Your task to perform on an android device: See recent photos Image 0: 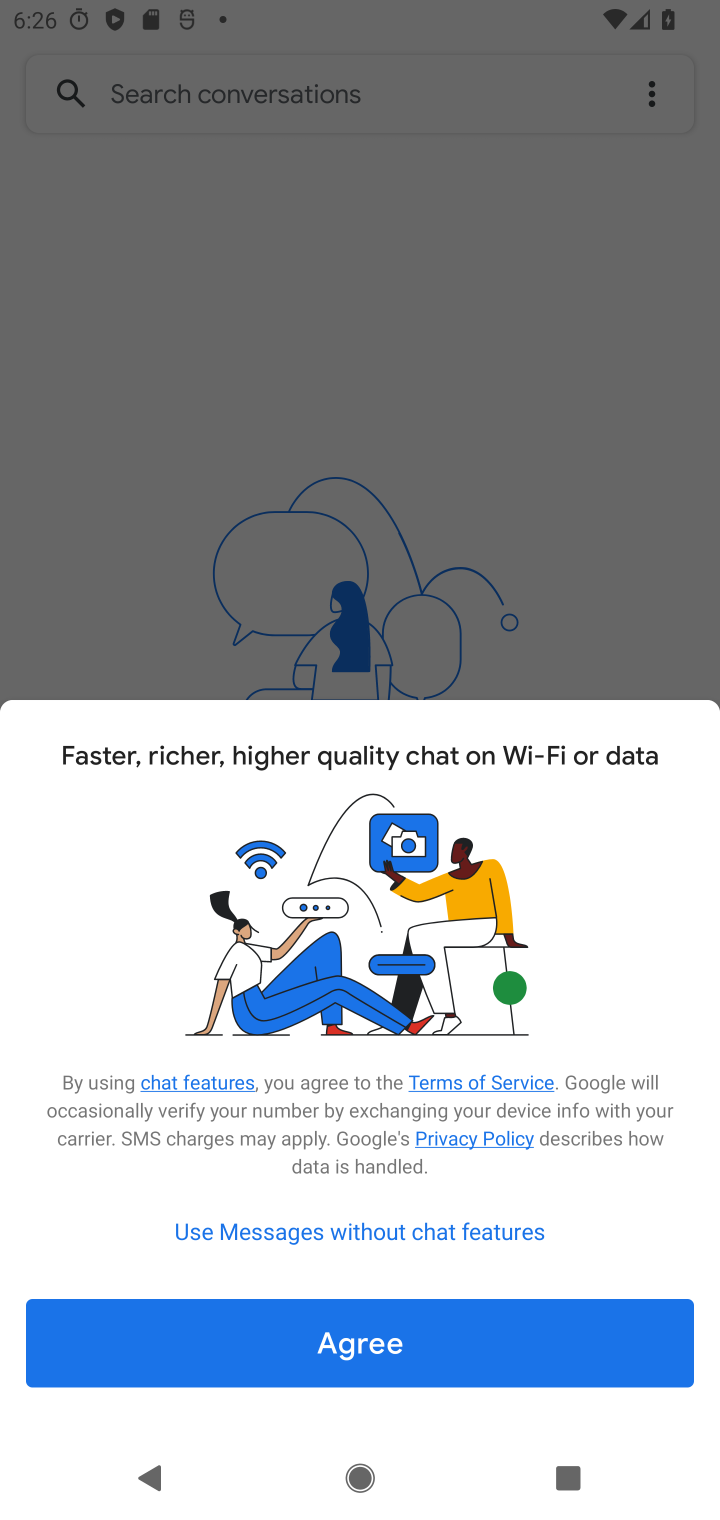
Step 0: press home button
Your task to perform on an android device: See recent photos Image 1: 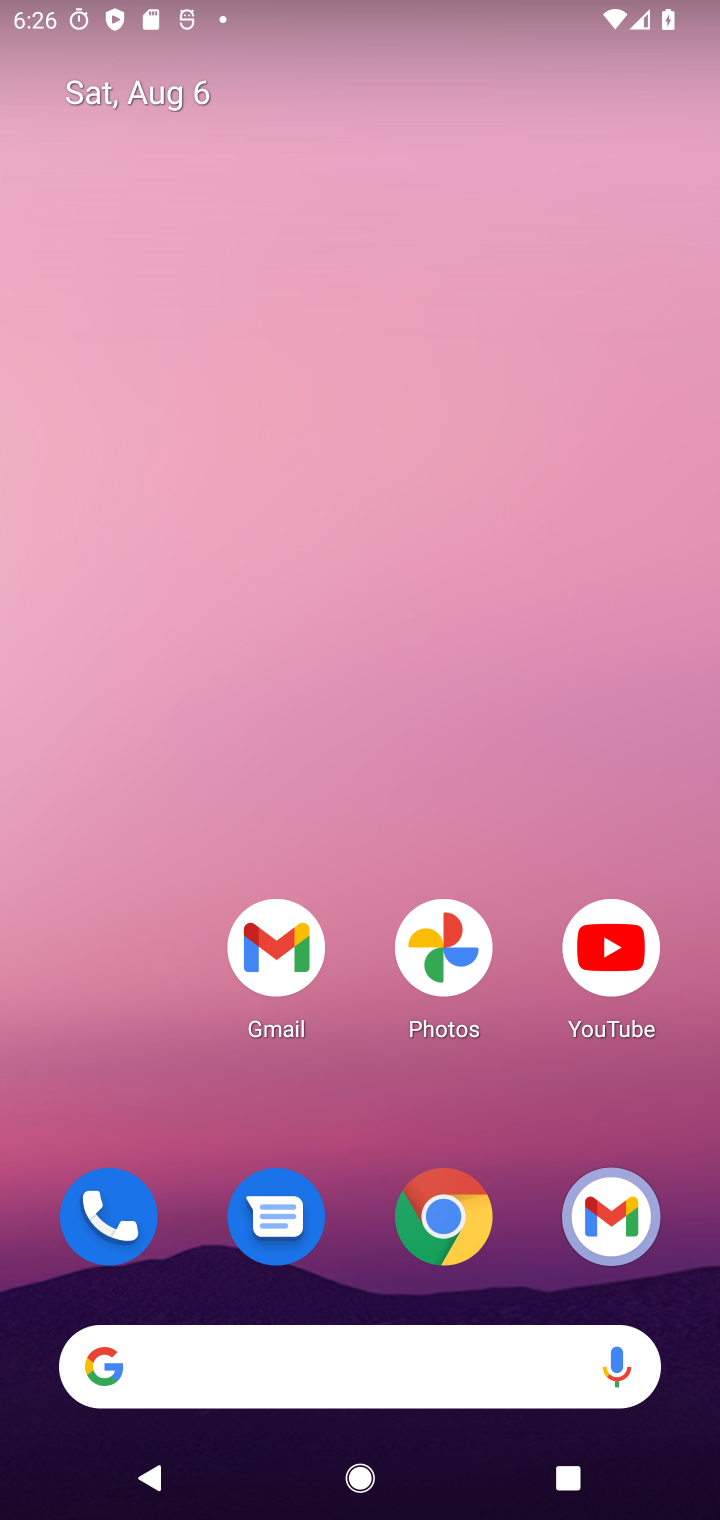
Step 1: drag from (381, 927) to (373, 194)
Your task to perform on an android device: See recent photos Image 2: 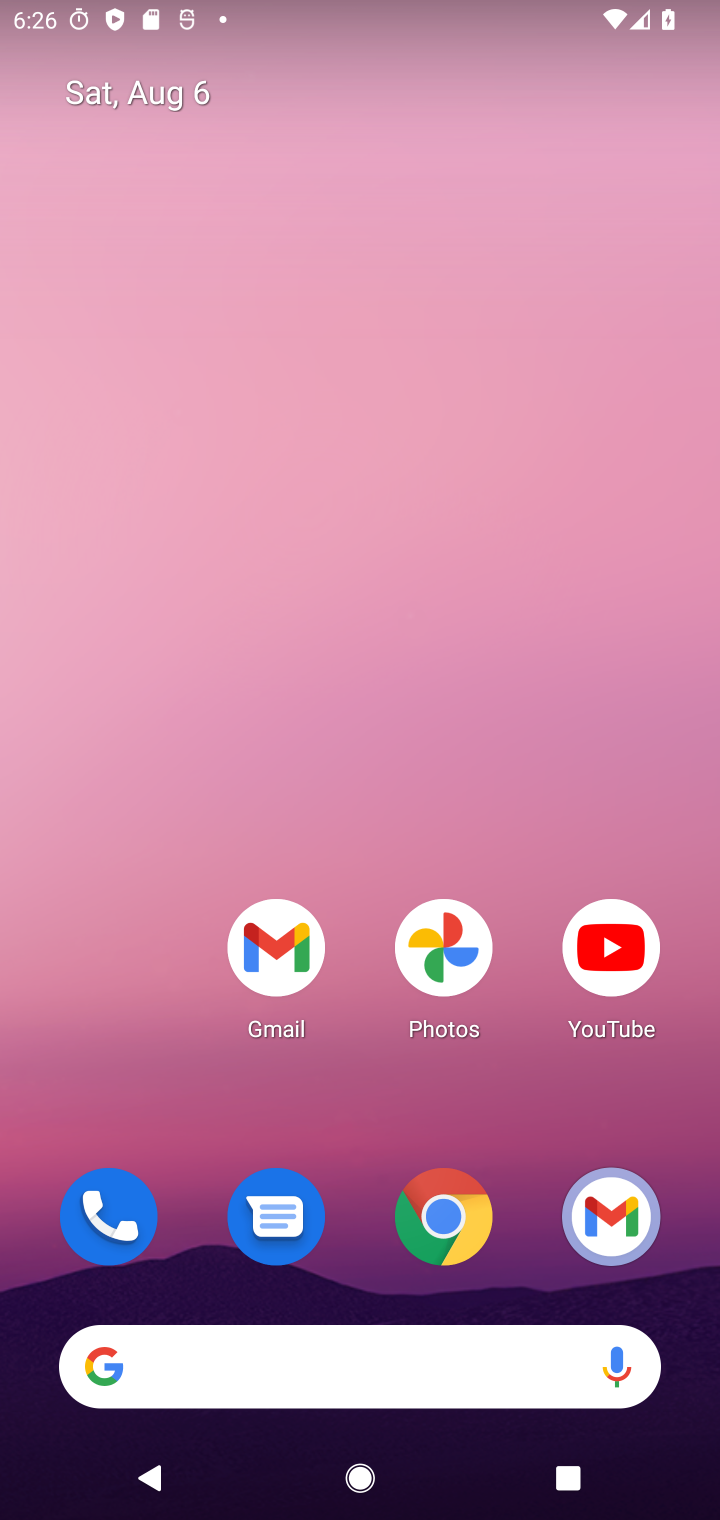
Step 2: click (321, 497)
Your task to perform on an android device: See recent photos Image 3: 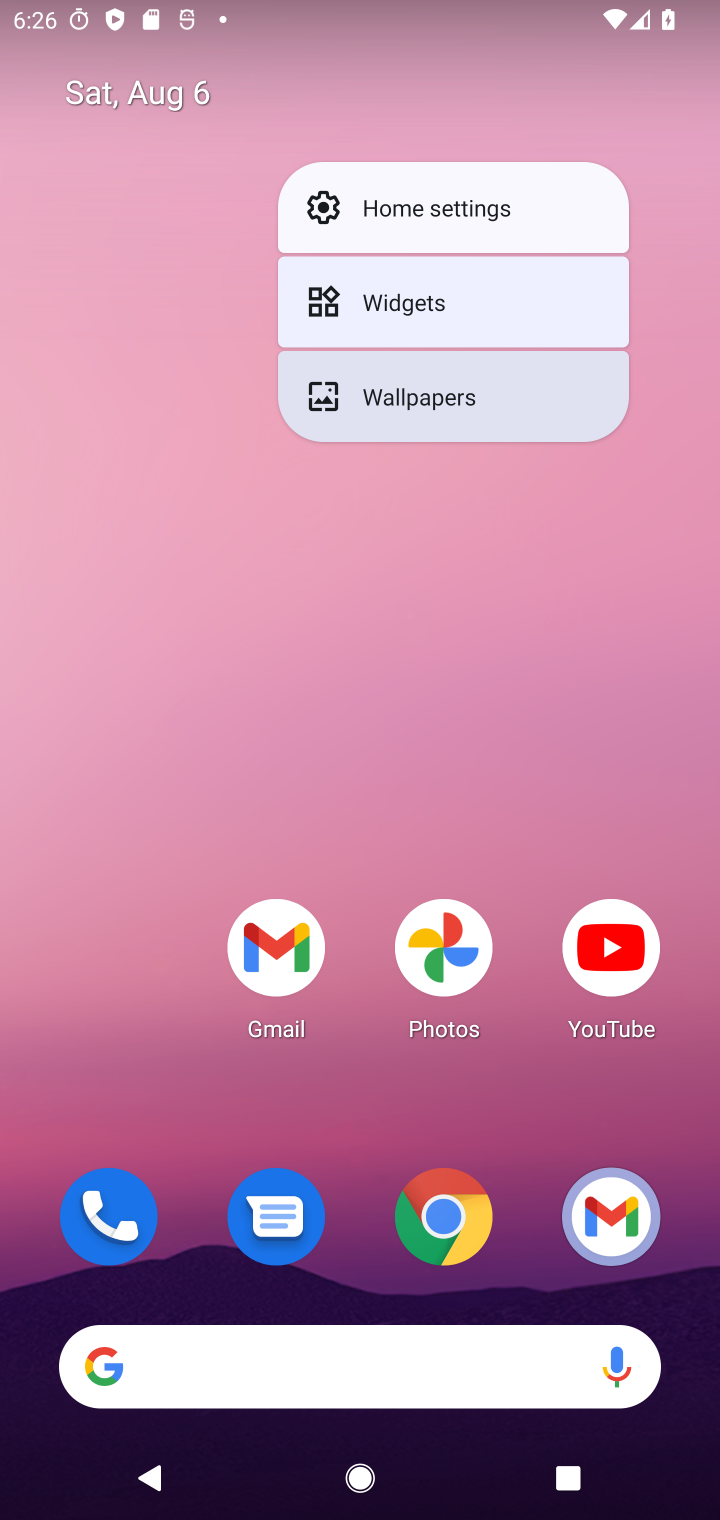
Step 3: click (360, 1090)
Your task to perform on an android device: See recent photos Image 4: 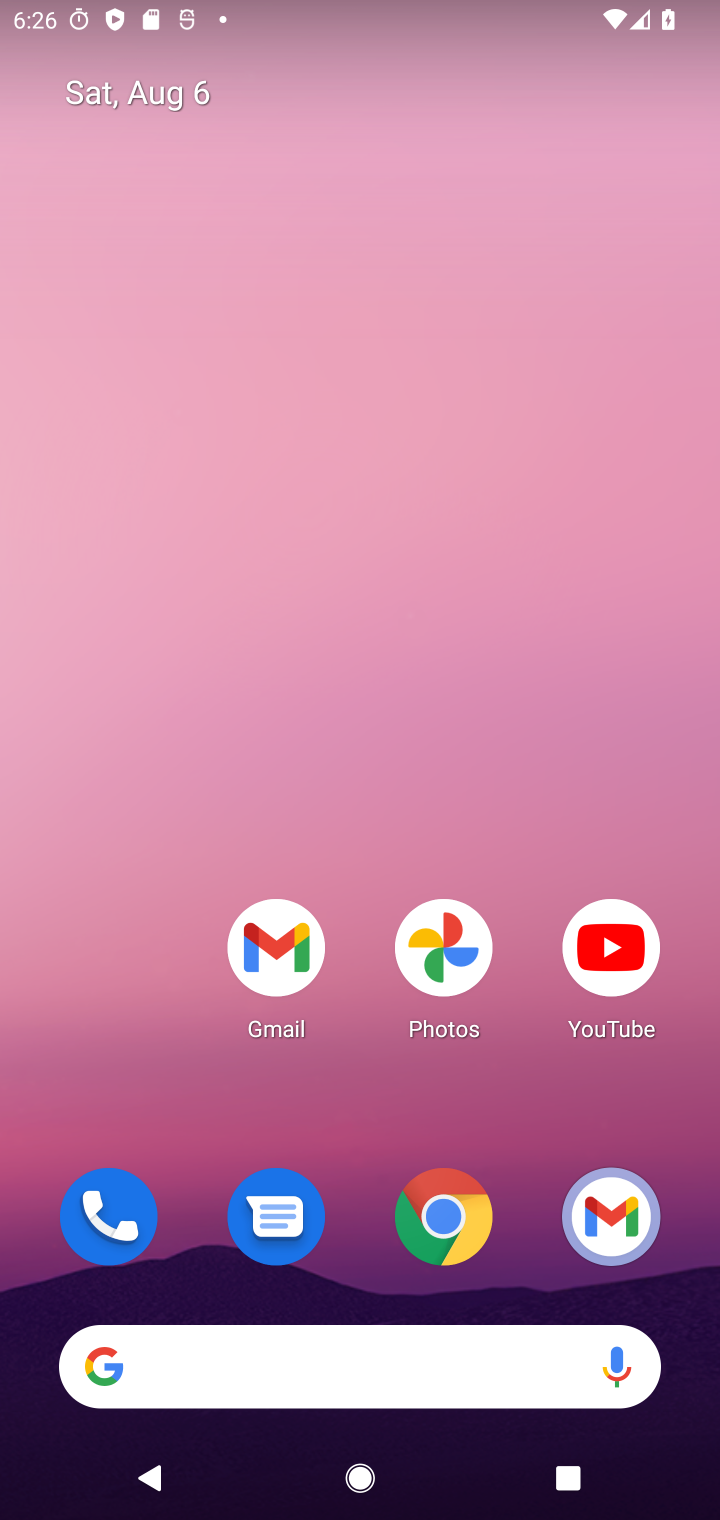
Step 4: click (393, 1070)
Your task to perform on an android device: See recent photos Image 5: 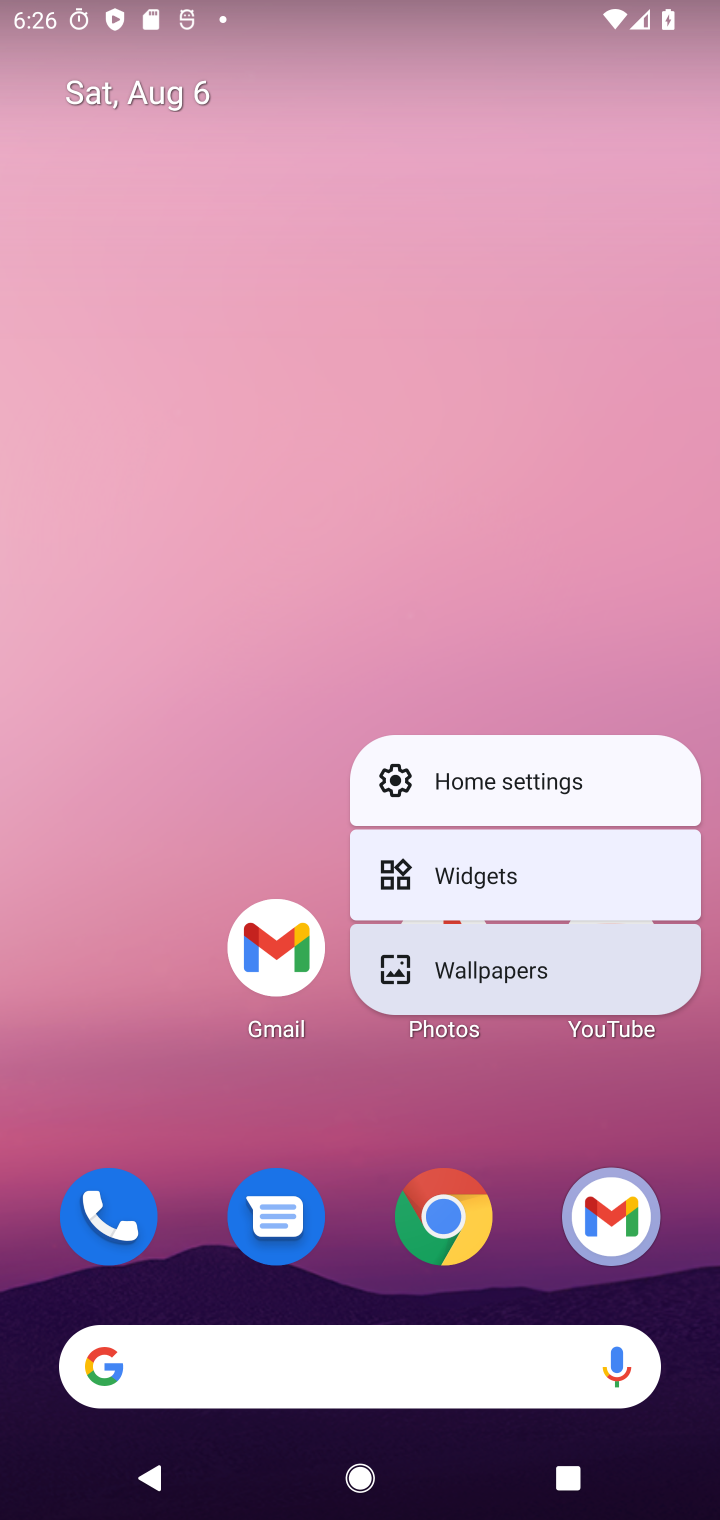
Step 5: click (375, 1122)
Your task to perform on an android device: See recent photos Image 6: 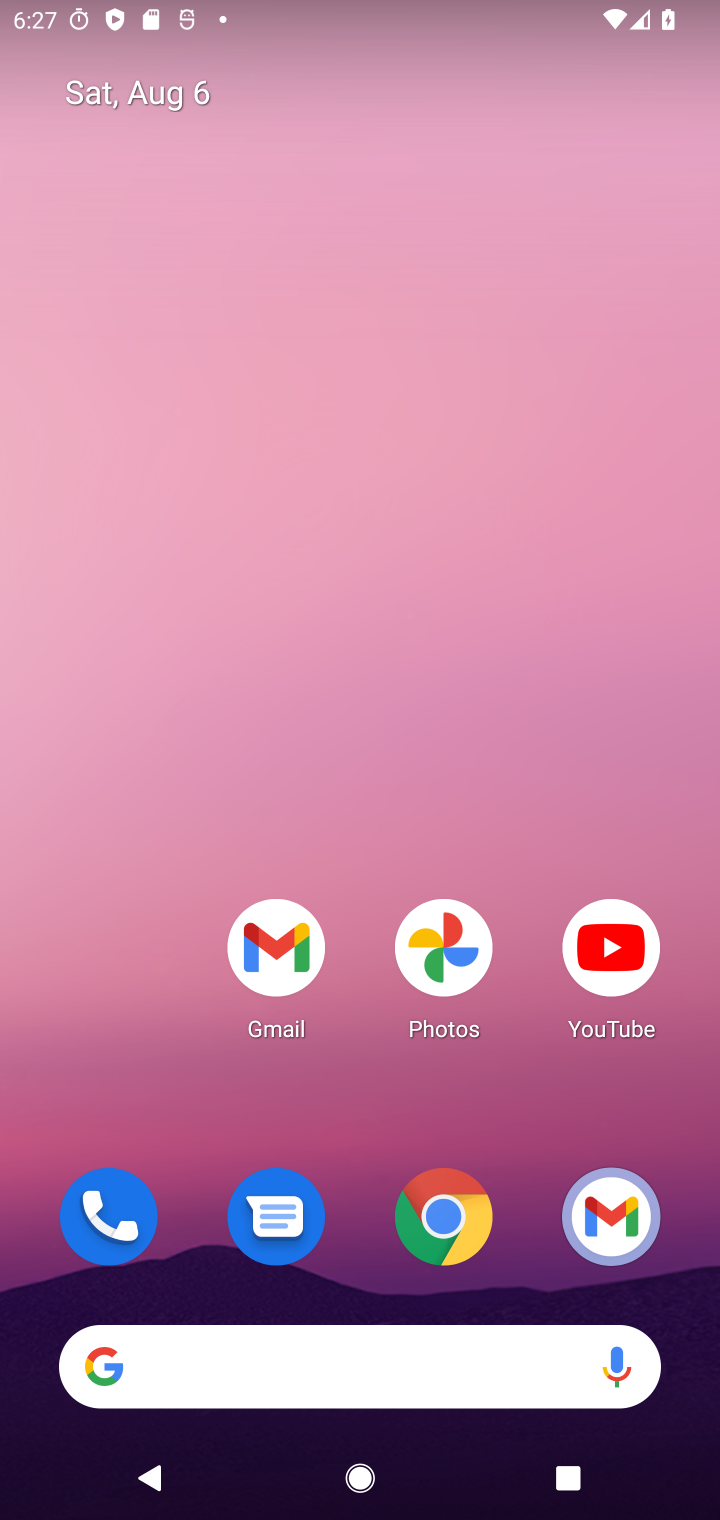
Step 6: drag from (371, 1113) to (341, 103)
Your task to perform on an android device: See recent photos Image 7: 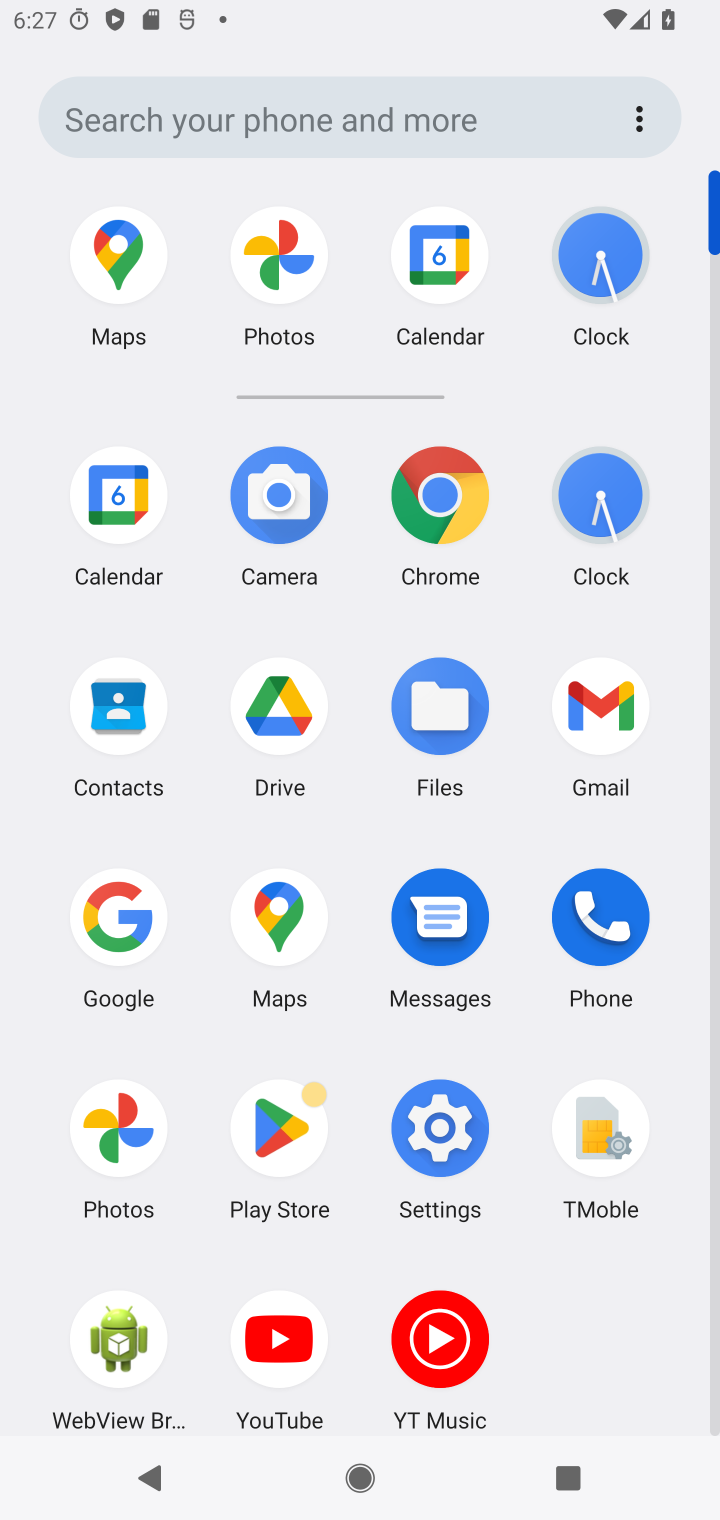
Step 7: click (136, 1110)
Your task to perform on an android device: See recent photos Image 8: 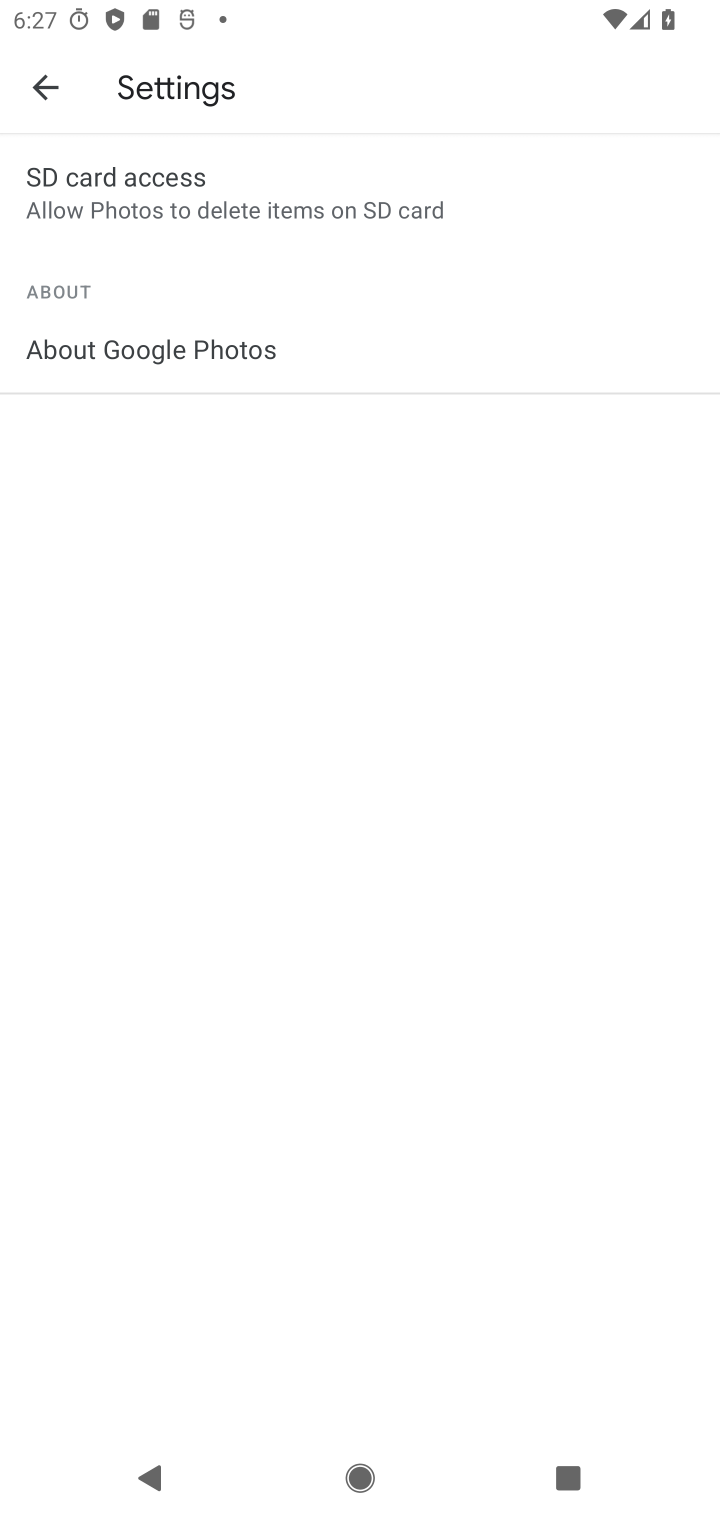
Step 8: press back button
Your task to perform on an android device: See recent photos Image 9: 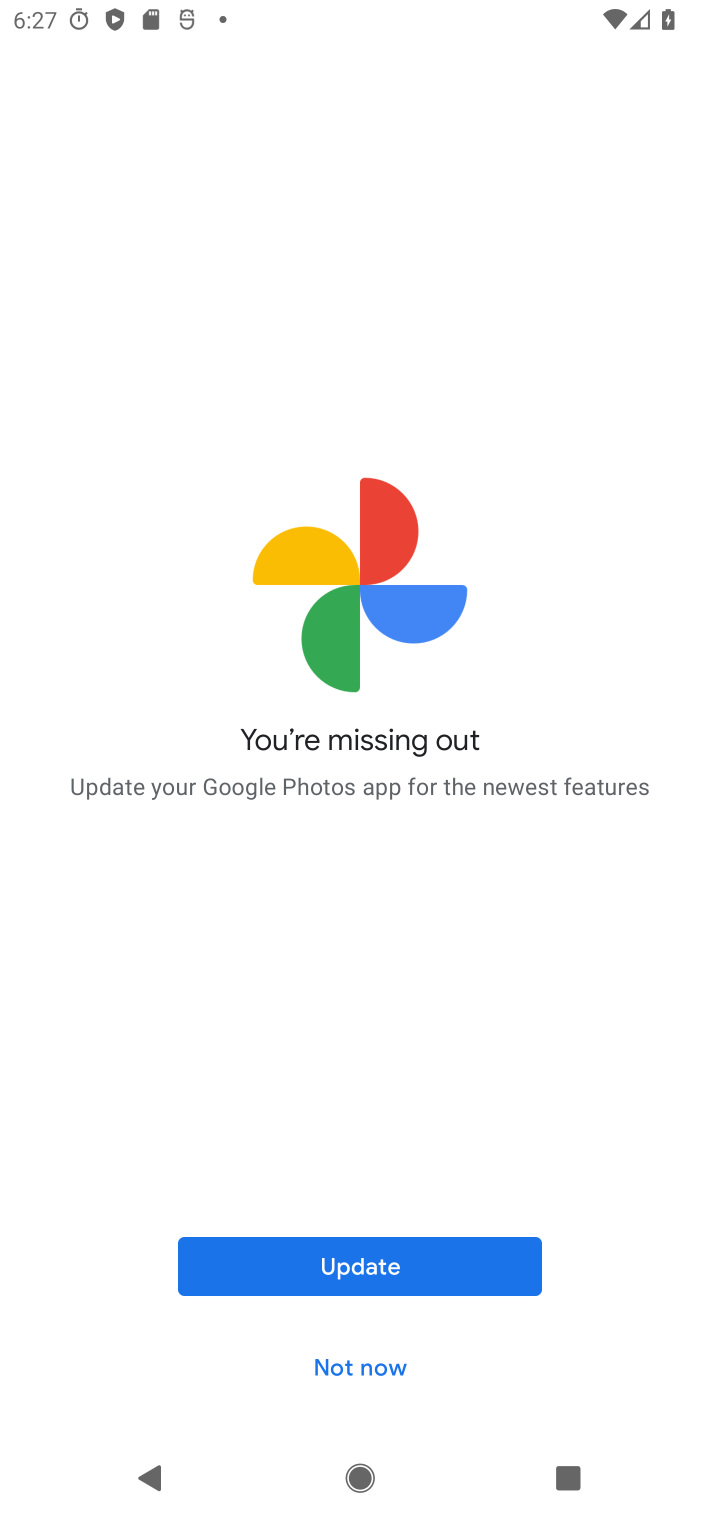
Step 9: click (357, 1387)
Your task to perform on an android device: See recent photos Image 10: 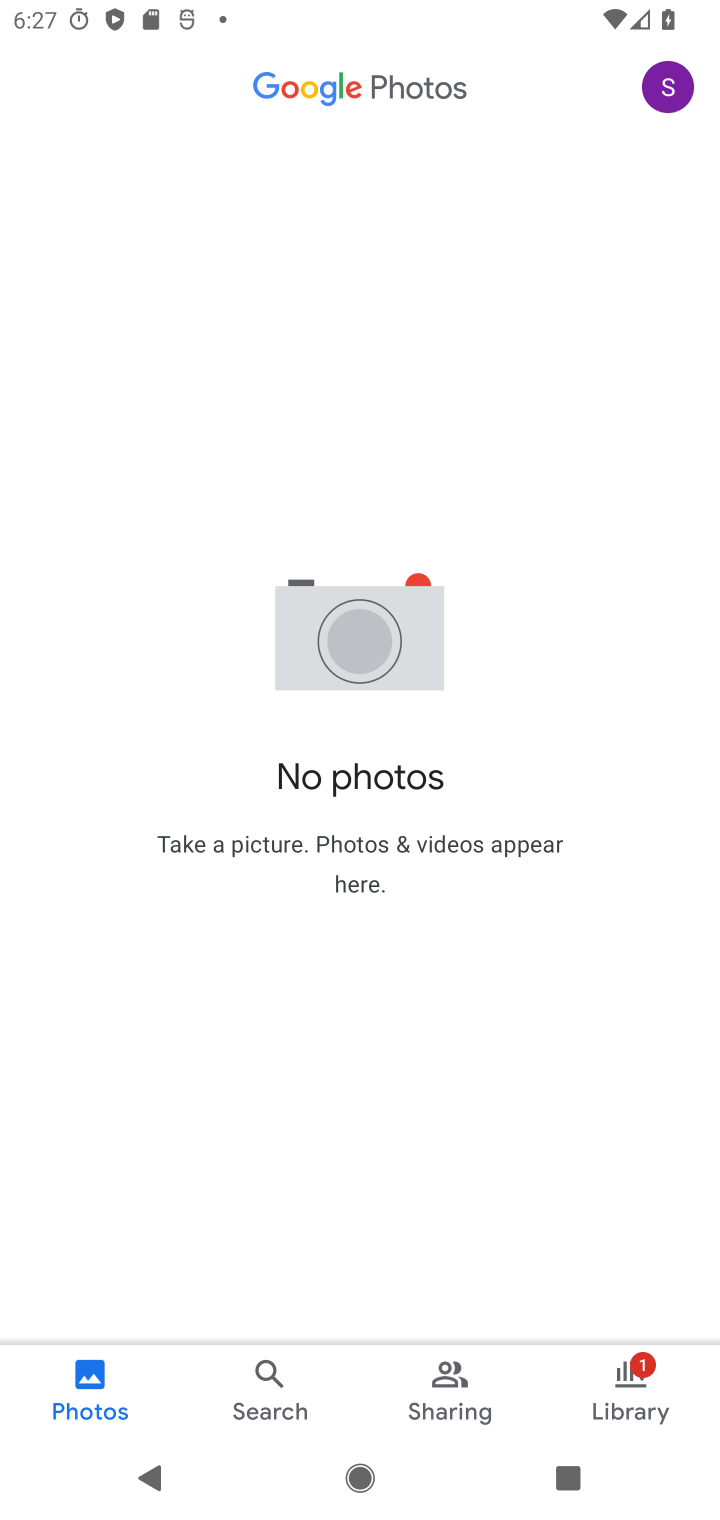
Step 10: task complete